Your task to perform on an android device: Search for Italian restaurants on Maps Image 0: 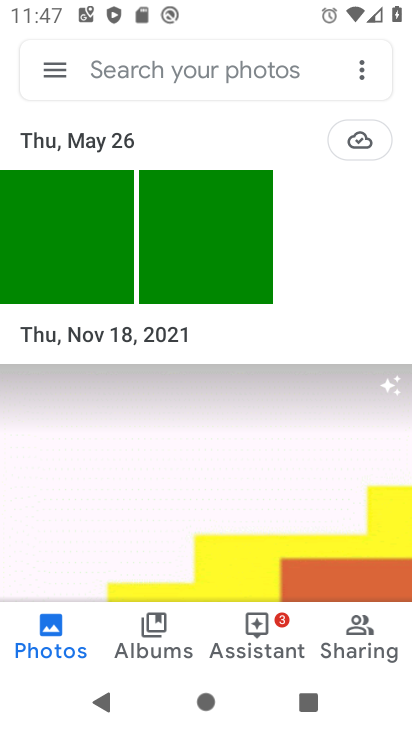
Step 0: press home button
Your task to perform on an android device: Search for Italian restaurants on Maps Image 1: 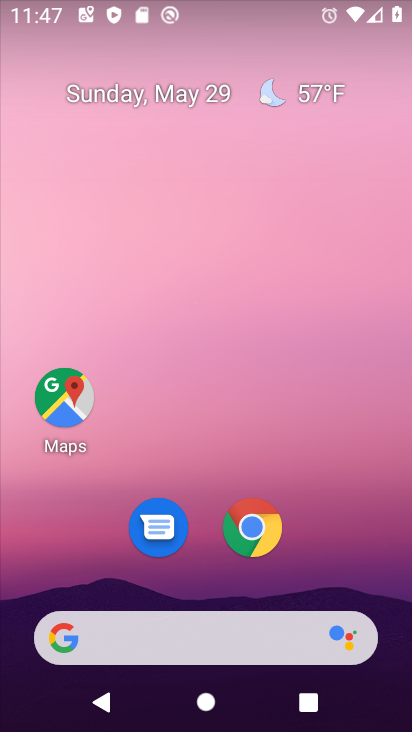
Step 1: click (64, 411)
Your task to perform on an android device: Search for Italian restaurants on Maps Image 2: 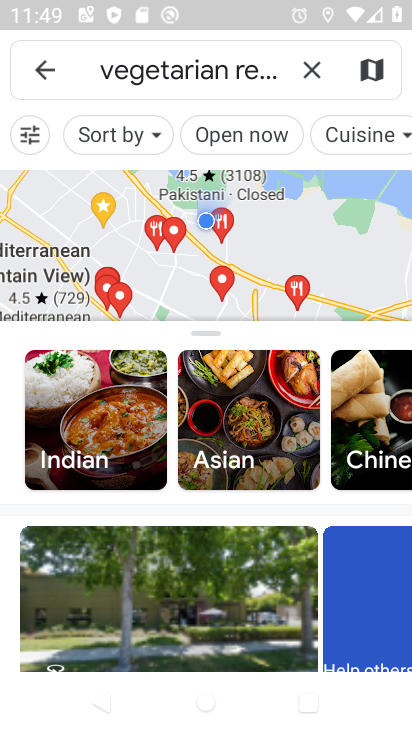
Step 2: click (312, 68)
Your task to perform on an android device: Search for Italian restaurants on Maps Image 3: 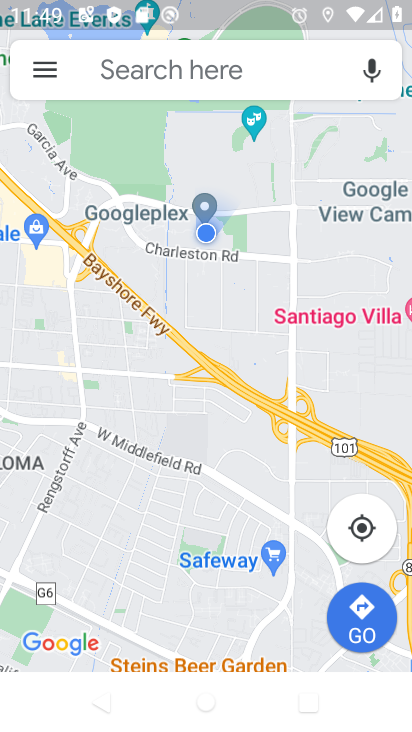
Step 3: click (154, 78)
Your task to perform on an android device: Search for Italian restaurants on Maps Image 4: 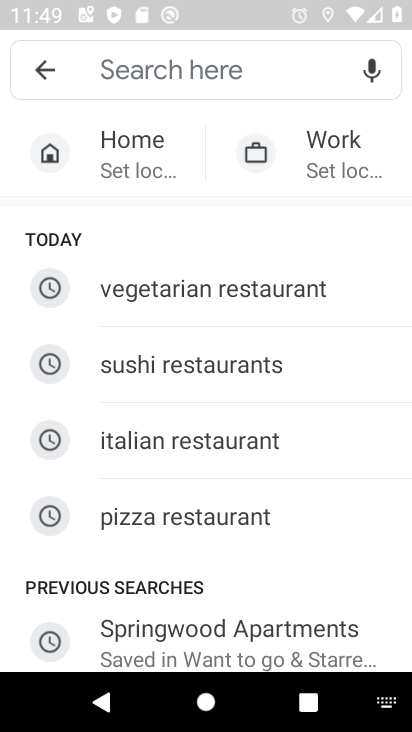
Step 4: click (157, 445)
Your task to perform on an android device: Search for Italian restaurants on Maps Image 5: 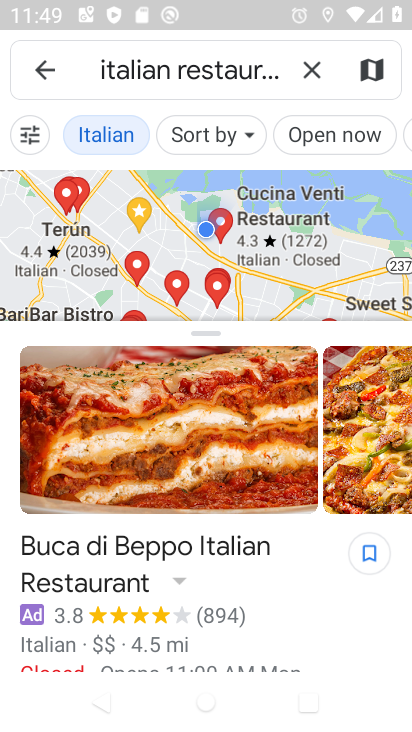
Step 5: task complete